Your task to perform on an android device: Search for the best rated mattress topper on Target. Image 0: 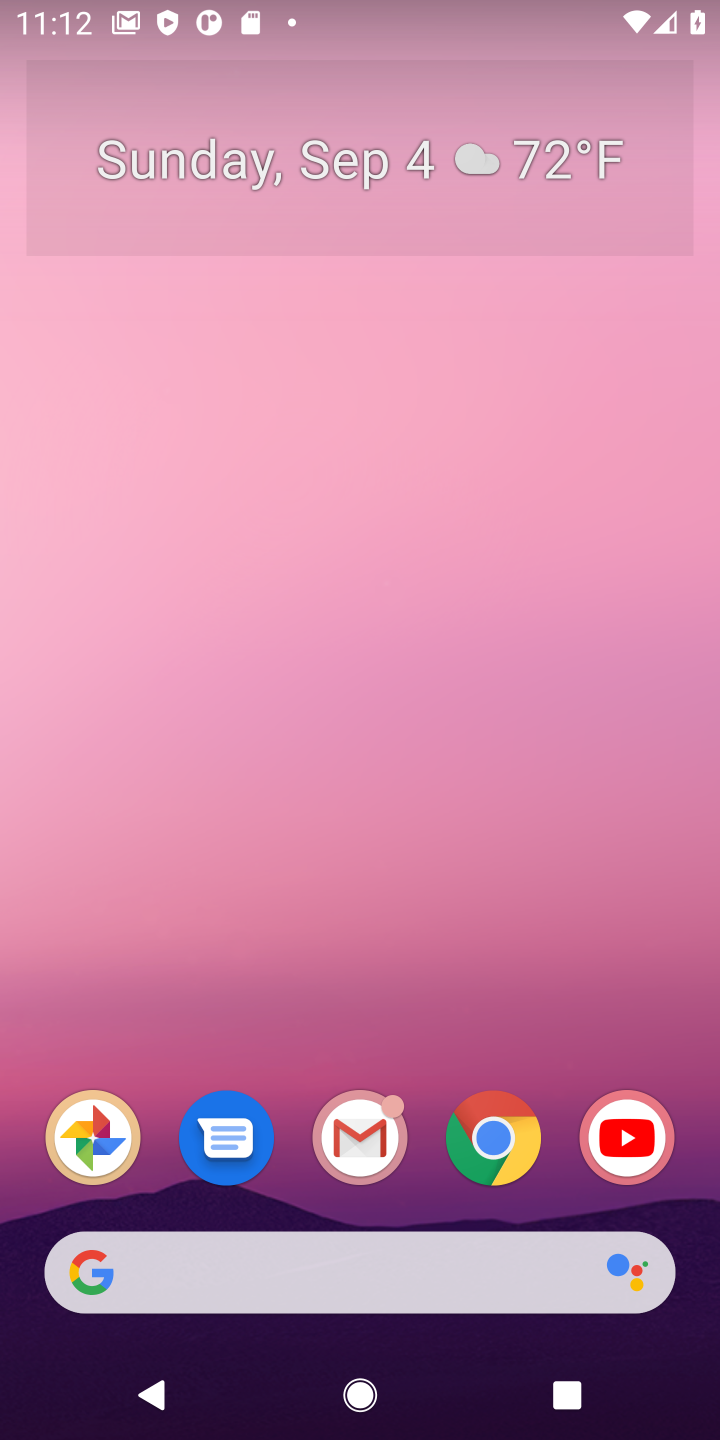
Step 0: click (492, 1148)
Your task to perform on an android device: Search for the best rated mattress topper on Target. Image 1: 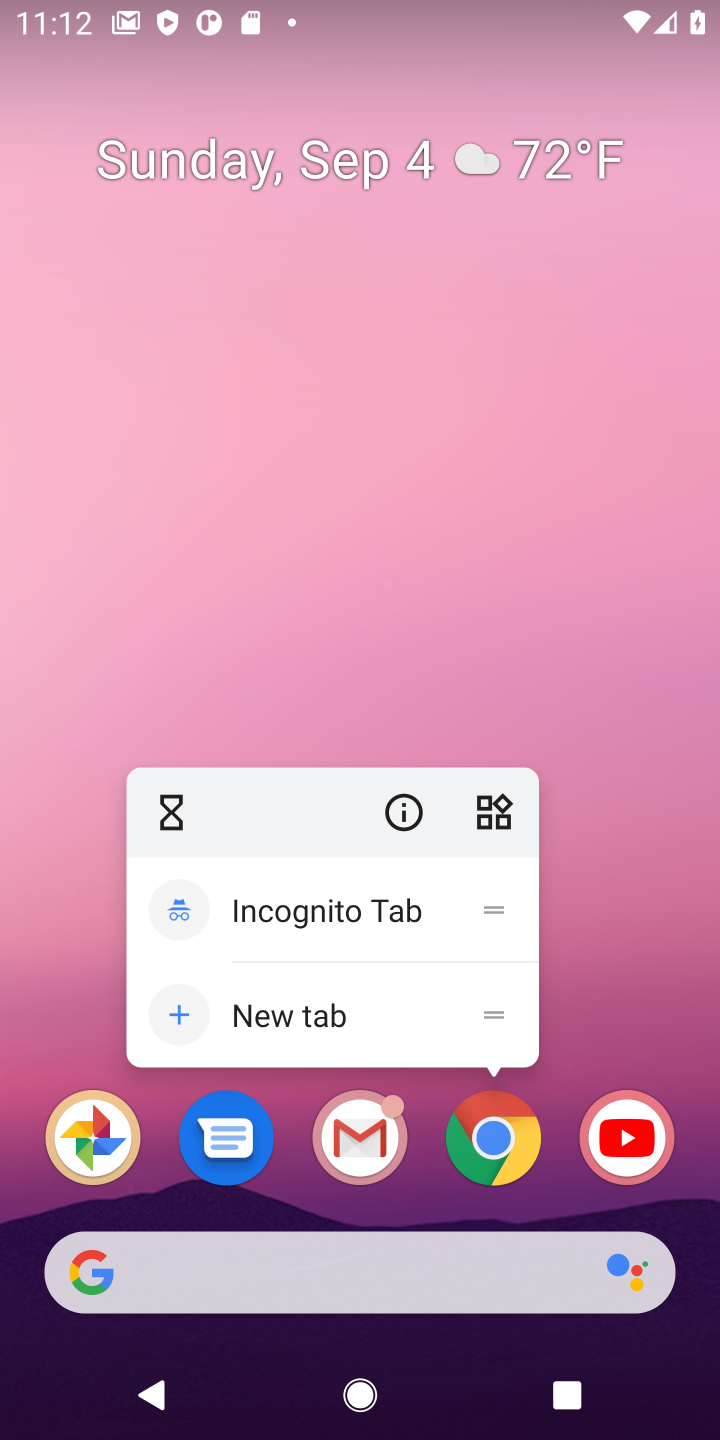
Step 1: click (510, 1133)
Your task to perform on an android device: Search for the best rated mattress topper on Target. Image 2: 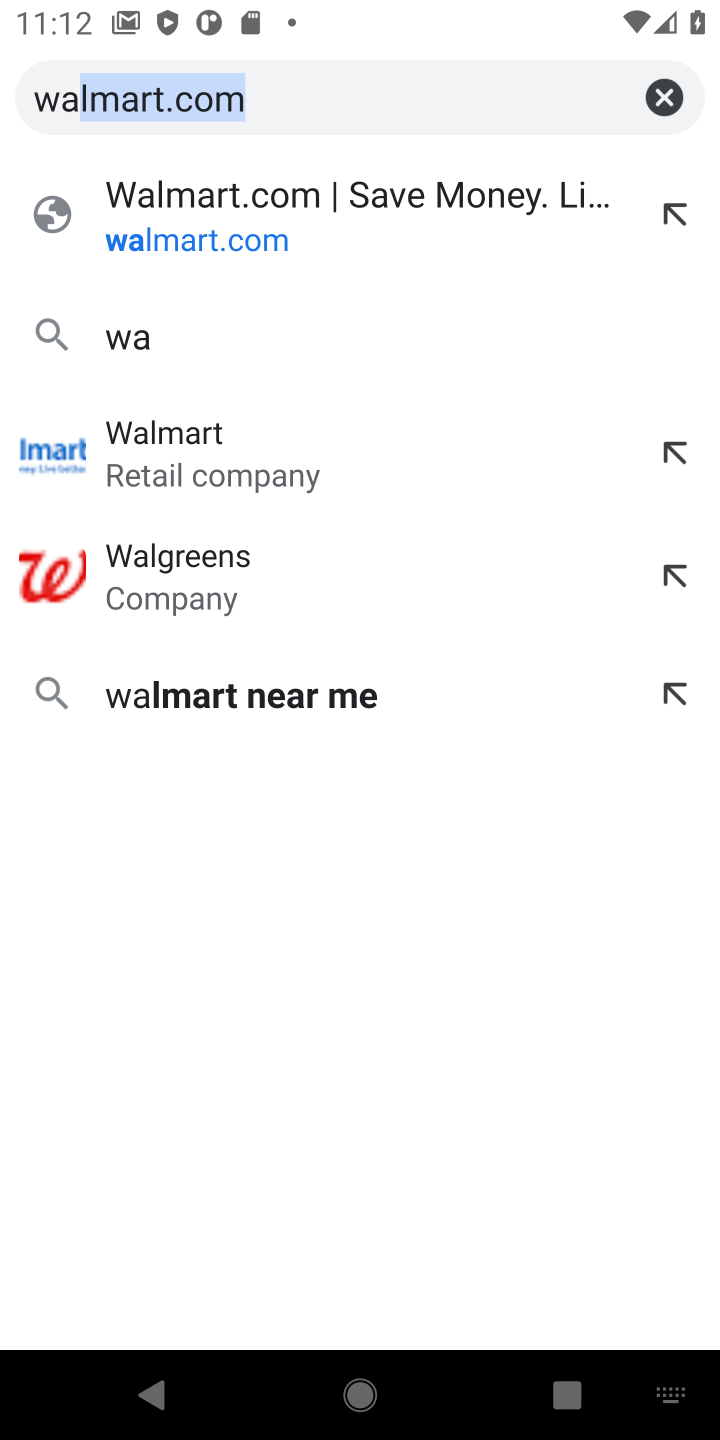
Step 2: click (666, 98)
Your task to perform on an android device: Search for the best rated mattress topper on Target. Image 3: 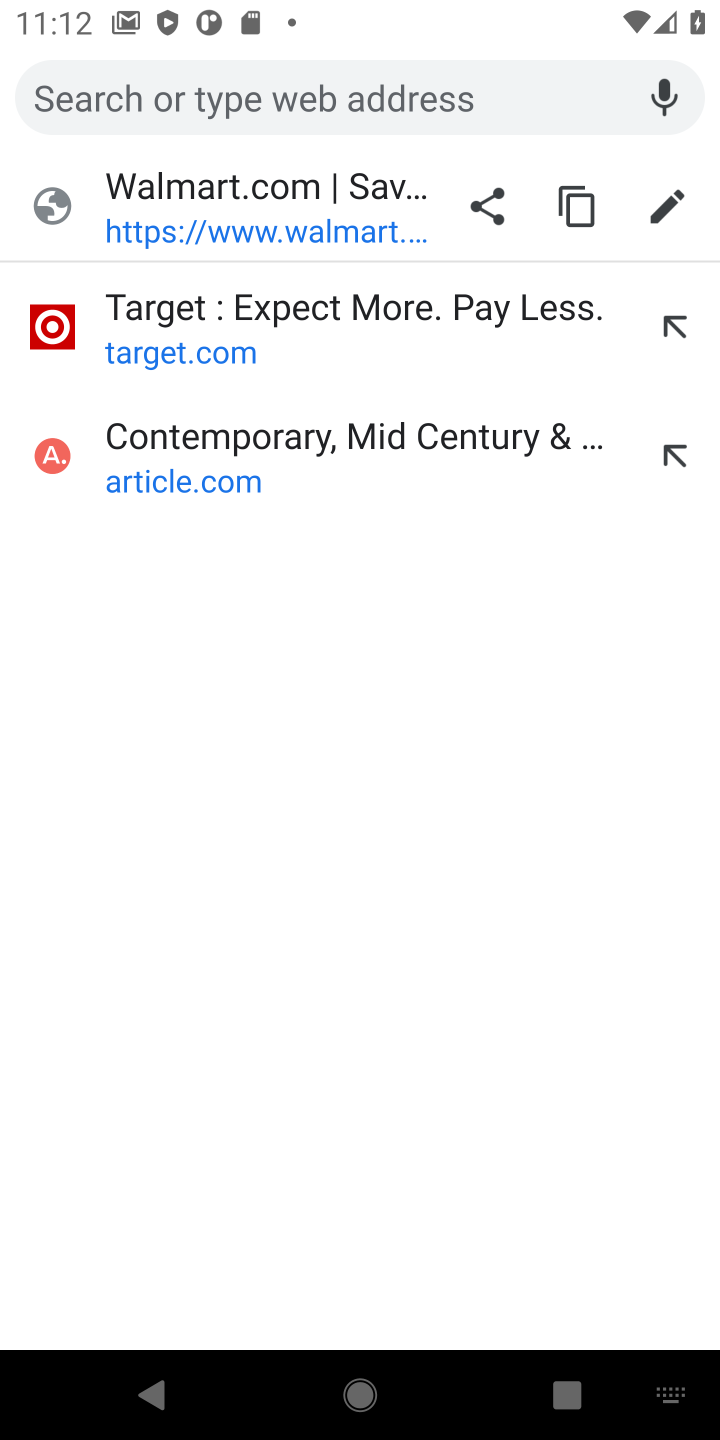
Step 3: type "target"
Your task to perform on an android device: Search for the best rated mattress topper on Target. Image 4: 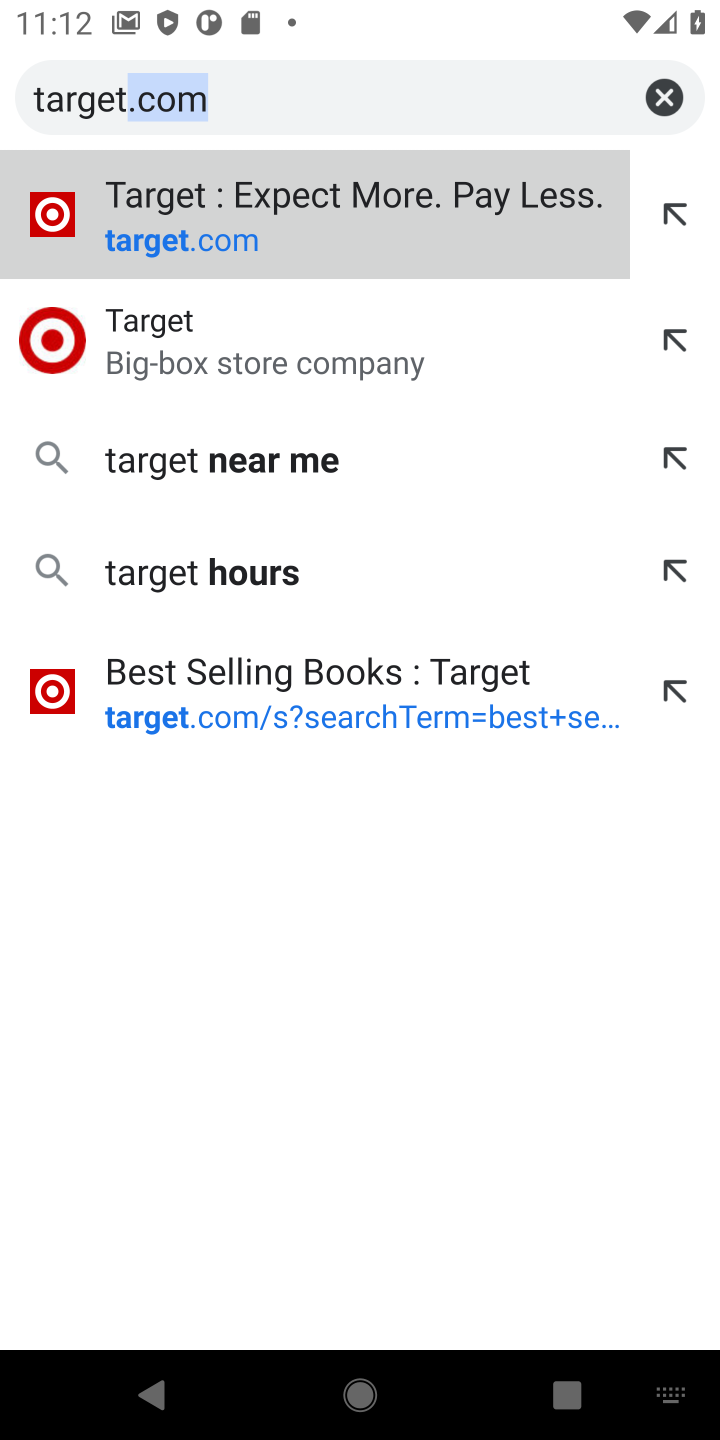
Step 4: click (411, 217)
Your task to perform on an android device: Search for the best rated mattress topper on Target. Image 5: 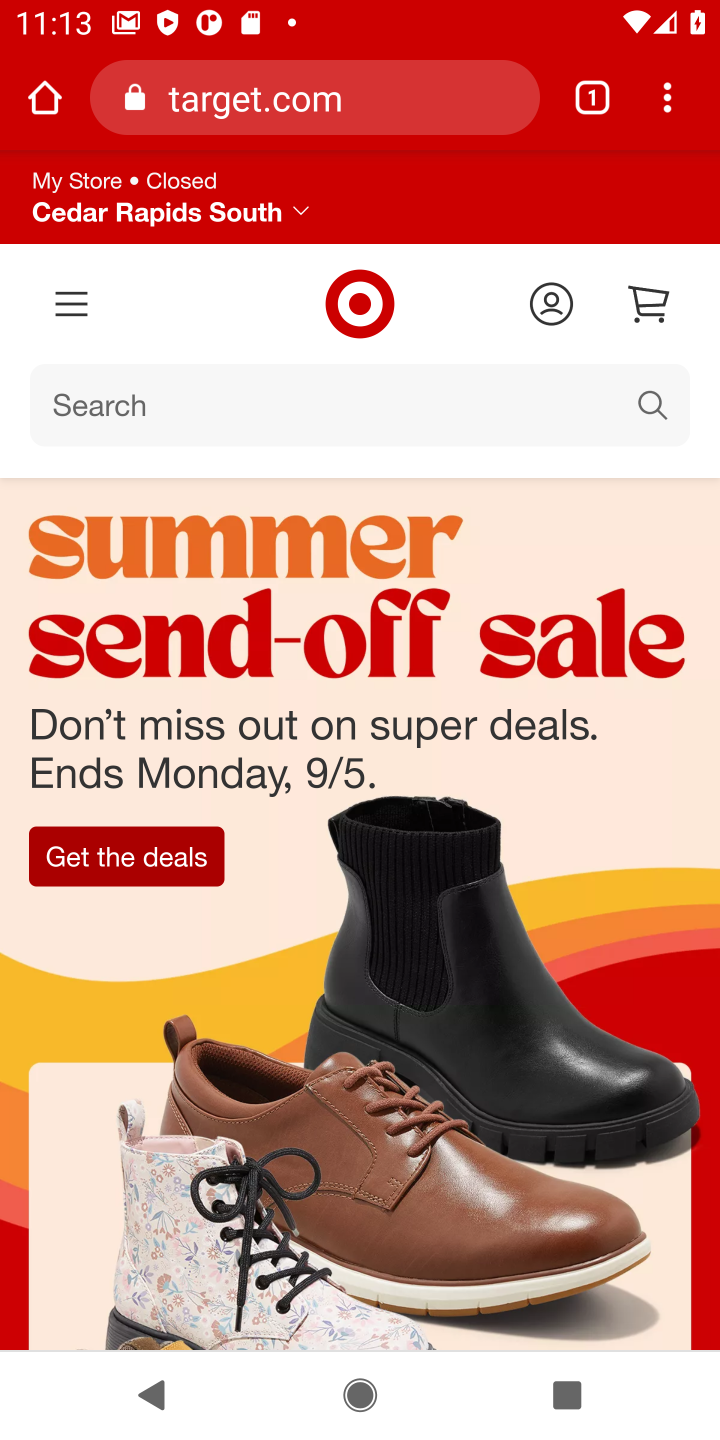
Step 5: click (275, 413)
Your task to perform on an android device: Search for the best rated mattress topper on Target. Image 6: 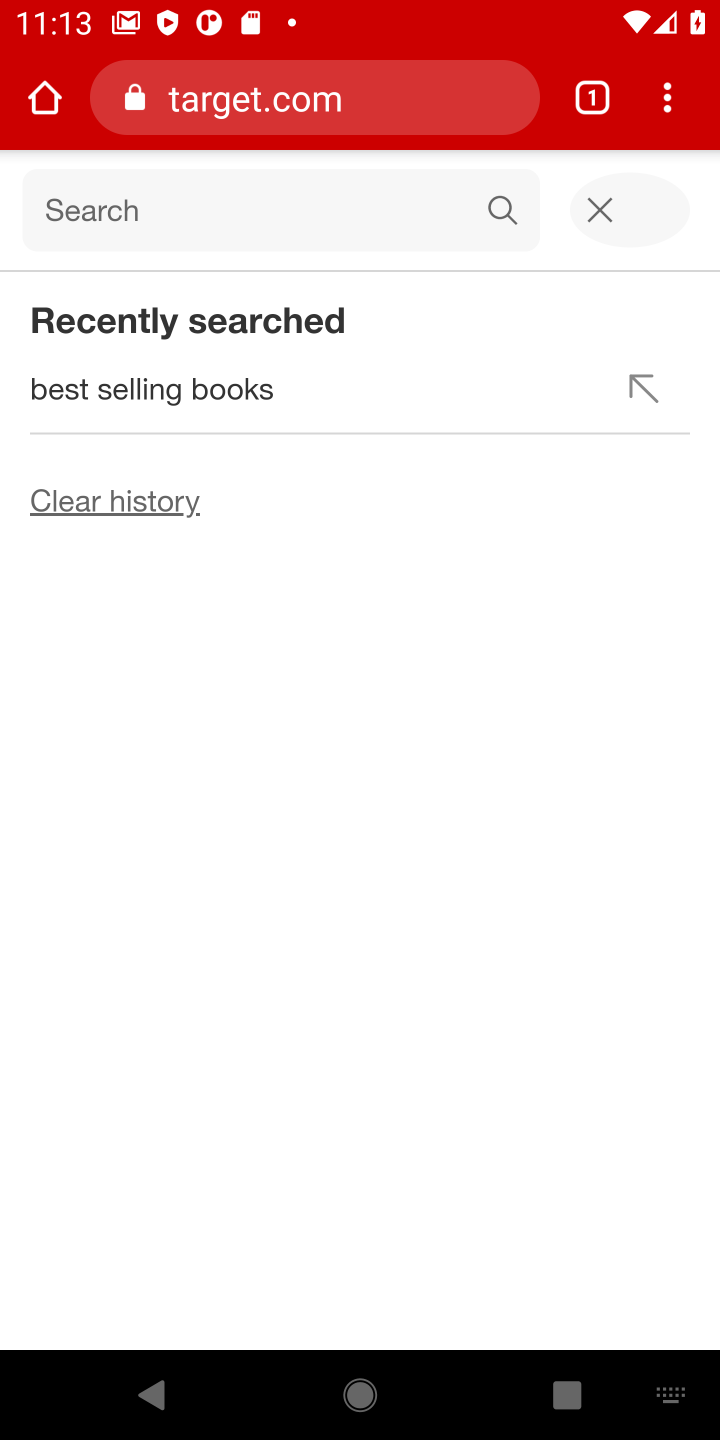
Step 6: click (398, 203)
Your task to perform on an android device: Search for the best rated mattress topper on Target. Image 7: 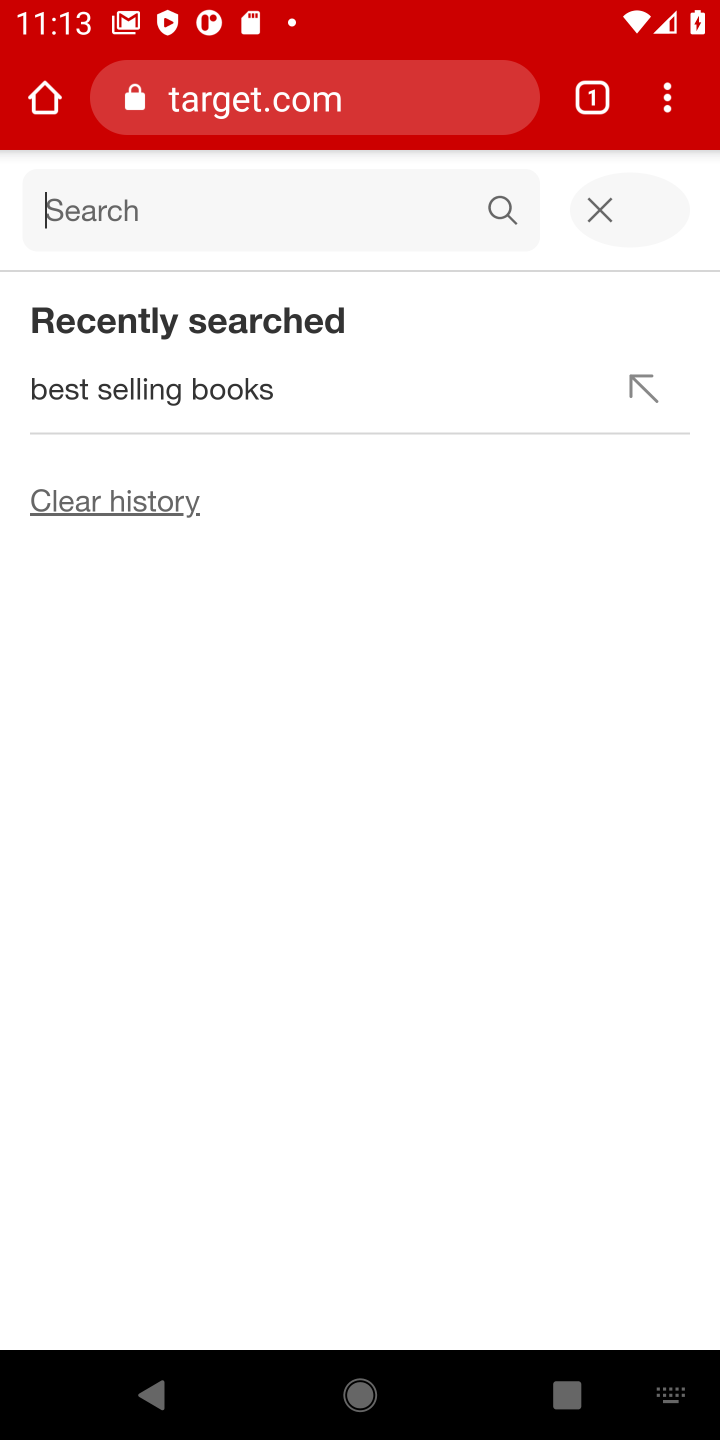
Step 7: type "best rated mattress topper\"
Your task to perform on an android device: Search for the best rated mattress topper on Target. Image 8: 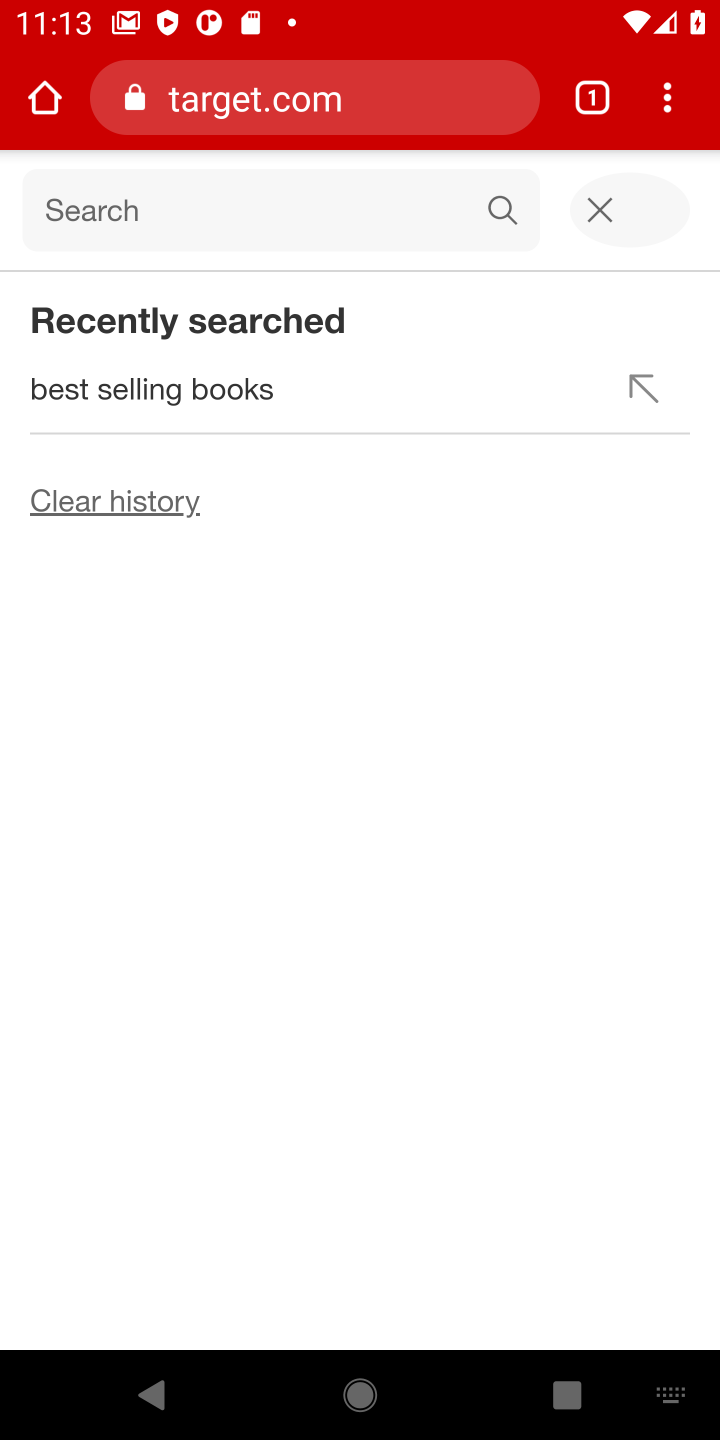
Step 8: type "best rated mattress topper"
Your task to perform on an android device: Search for the best rated mattress topper on Target. Image 9: 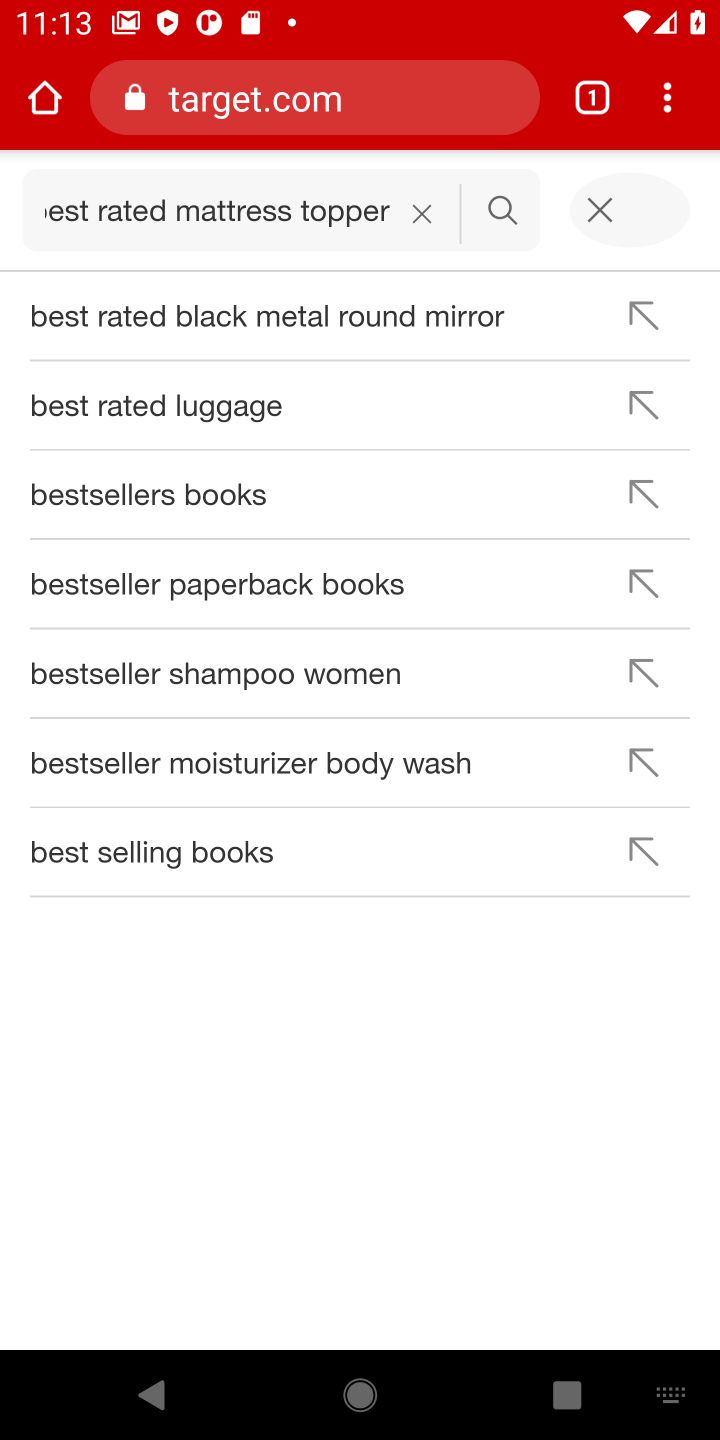
Step 9: press enter
Your task to perform on an android device: Search for the best rated mattress topper on Target. Image 10: 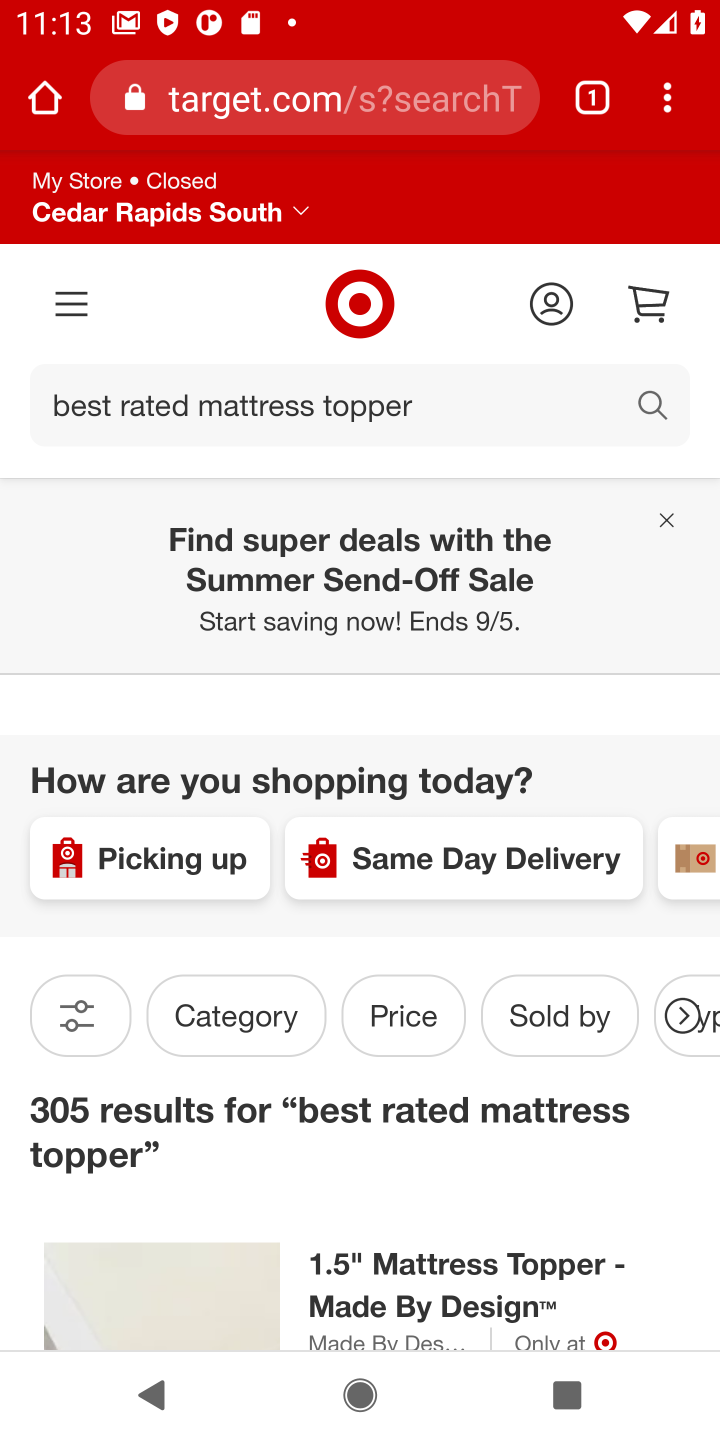
Step 10: task complete